Your task to perform on an android device: Search for "bose soundlink" on newegg, select the first entry, add it to the cart, then select checkout. Image 0: 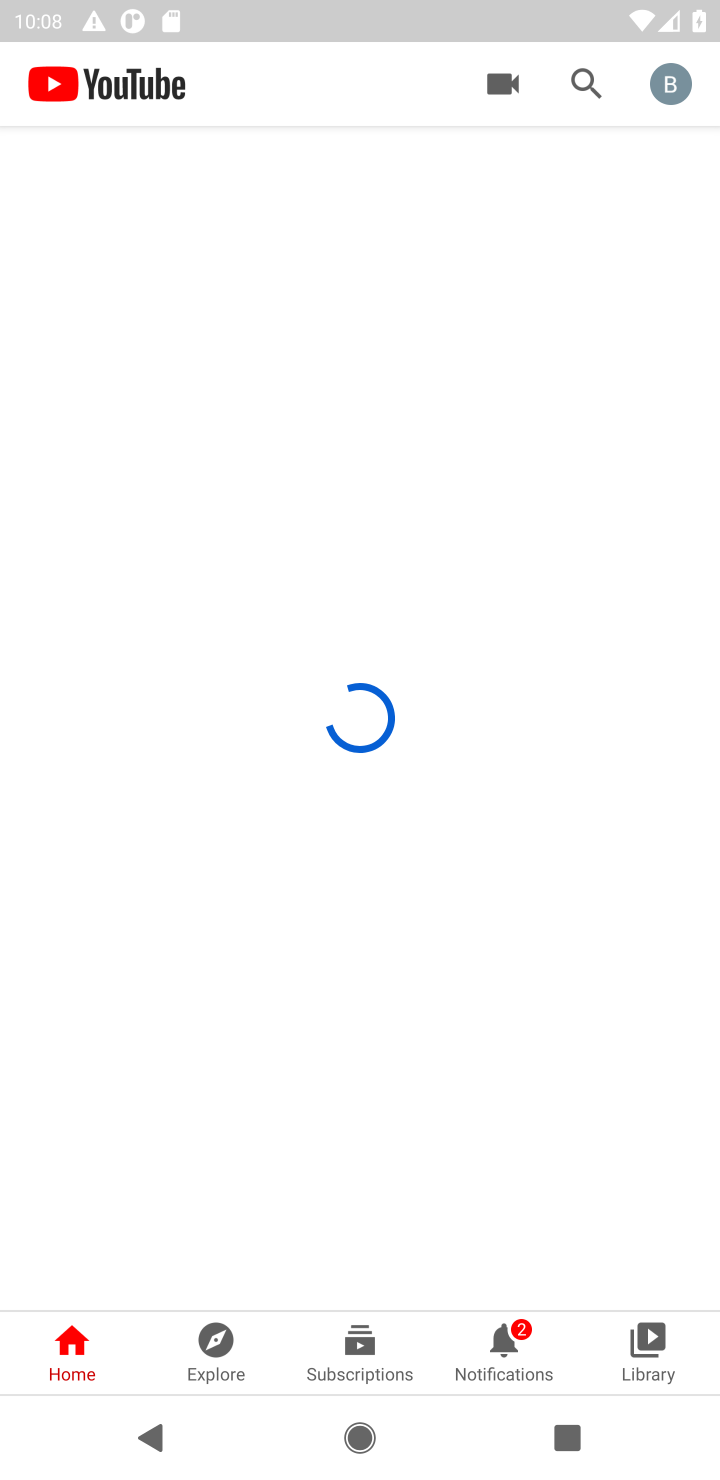
Step 0: press home button
Your task to perform on an android device: Search for "bose soundlink" on newegg, select the first entry, add it to the cart, then select checkout. Image 1: 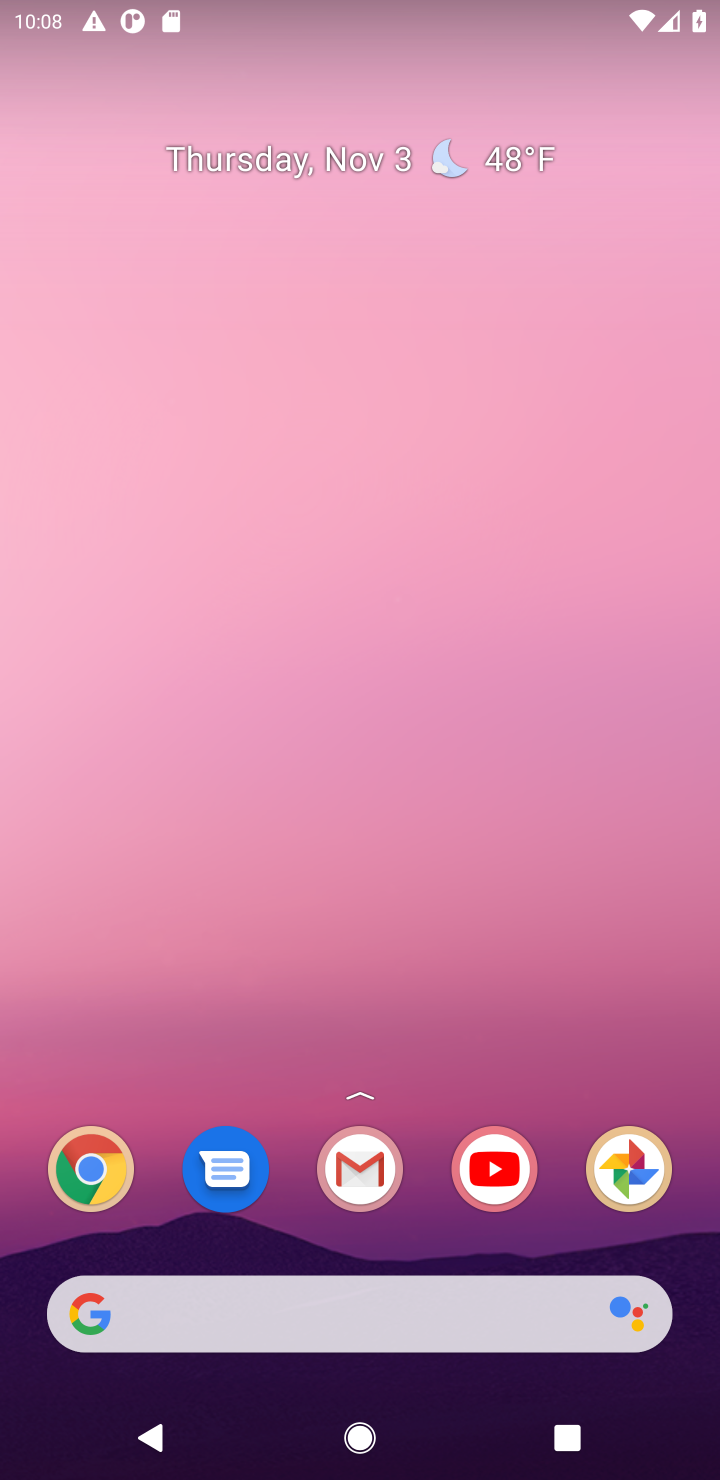
Step 1: drag from (552, 678) to (565, 257)
Your task to perform on an android device: Search for "bose soundlink" on newegg, select the first entry, add it to the cart, then select checkout. Image 2: 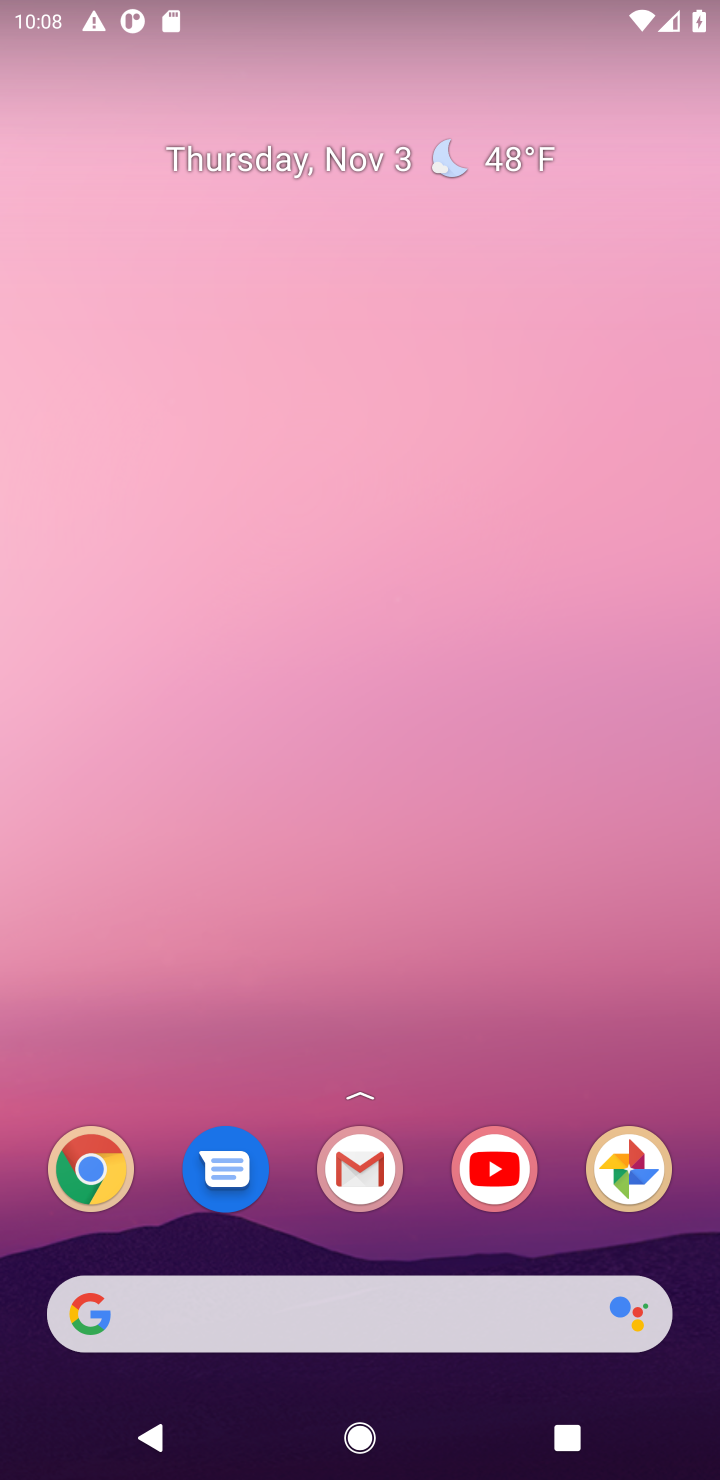
Step 2: drag from (470, 649) to (508, 184)
Your task to perform on an android device: Search for "bose soundlink" on newegg, select the first entry, add it to the cart, then select checkout. Image 3: 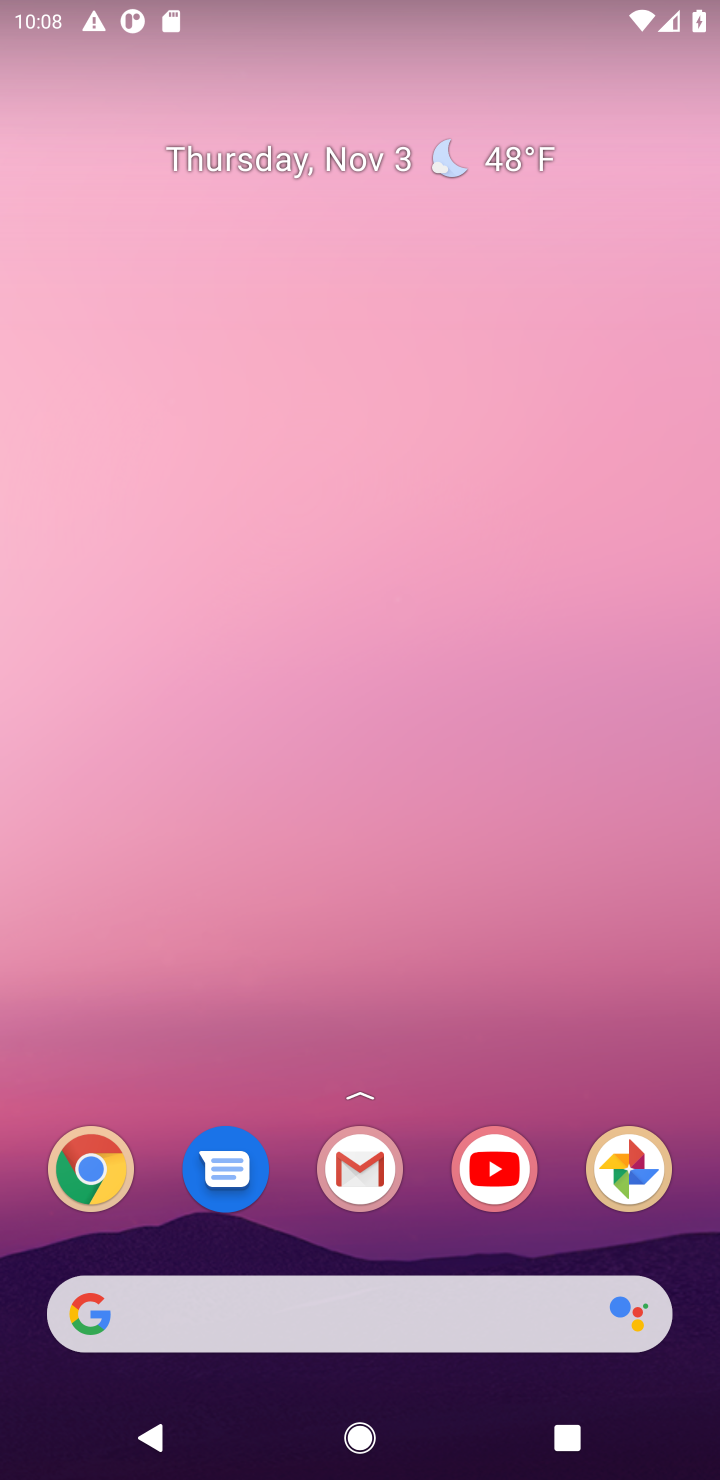
Step 3: drag from (436, 1238) to (447, 145)
Your task to perform on an android device: Search for "bose soundlink" on newegg, select the first entry, add it to the cart, then select checkout. Image 4: 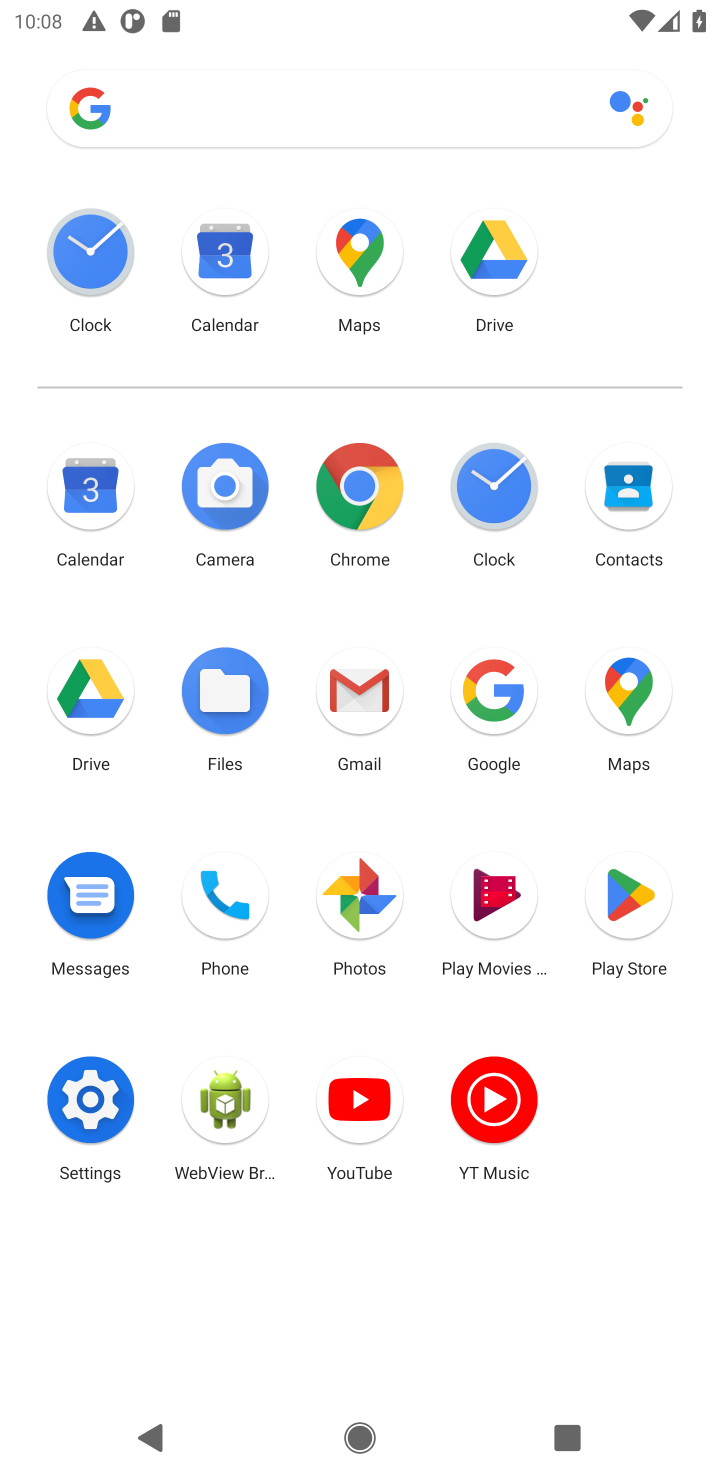
Step 4: click (357, 487)
Your task to perform on an android device: Search for "bose soundlink" on newegg, select the first entry, add it to the cart, then select checkout. Image 5: 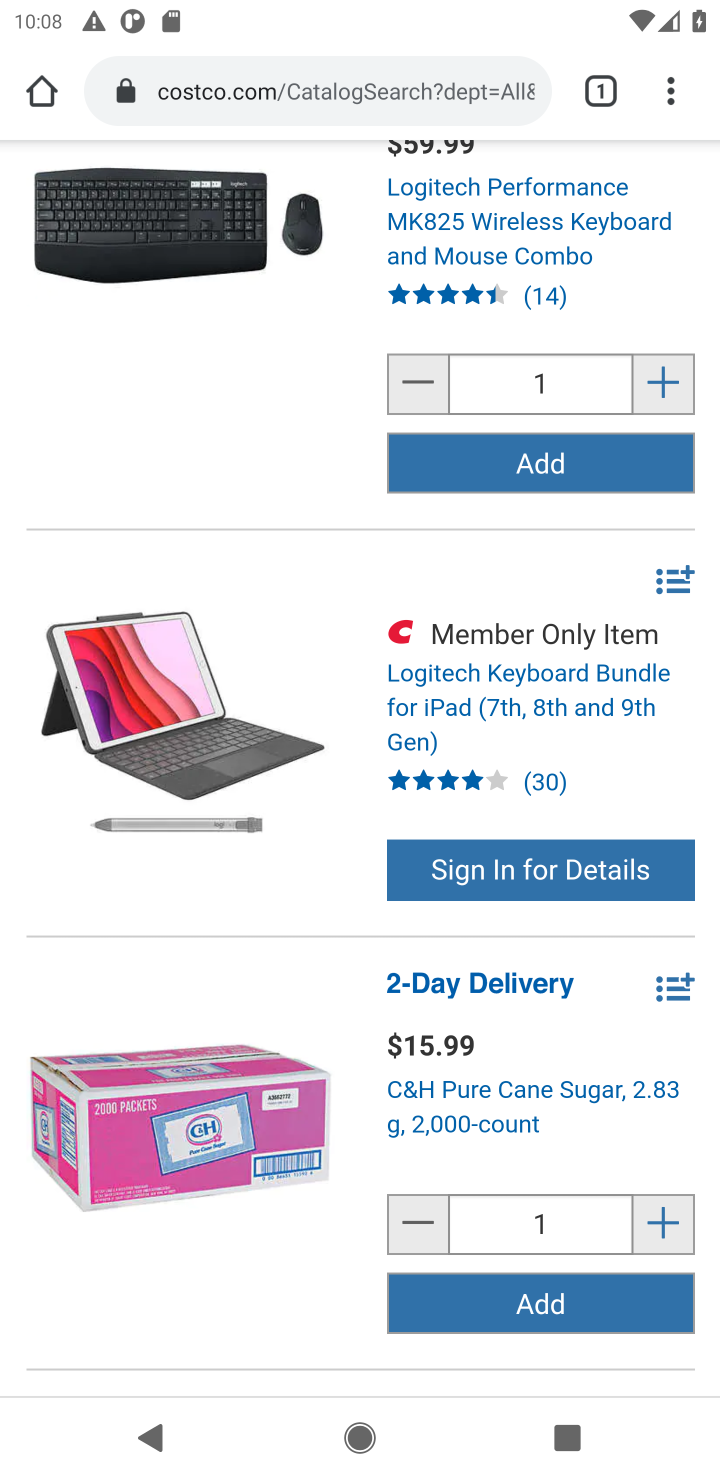
Step 5: click (349, 72)
Your task to perform on an android device: Search for "bose soundlink" on newegg, select the first entry, add it to the cart, then select checkout. Image 6: 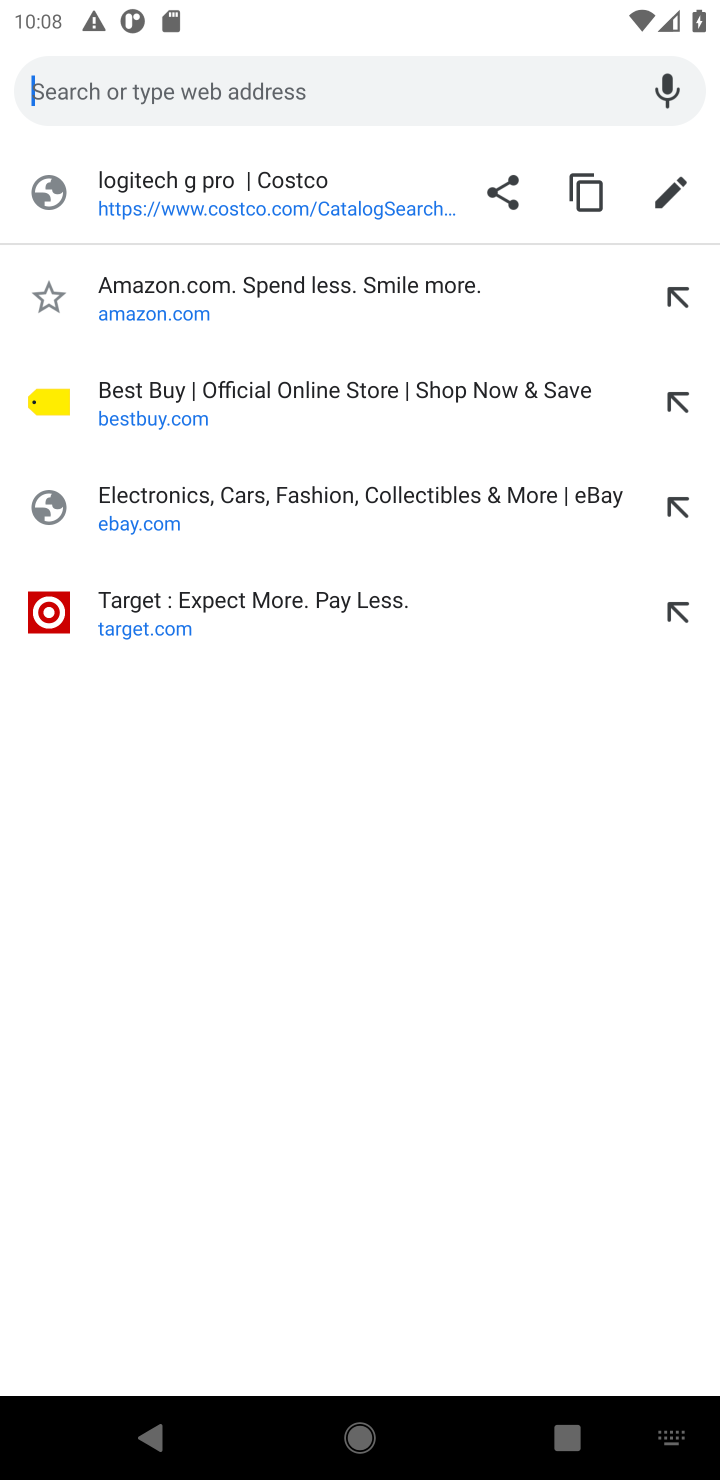
Step 6: type "newegg.com"
Your task to perform on an android device: Search for "bose soundlink" on newegg, select the first entry, add it to the cart, then select checkout. Image 7: 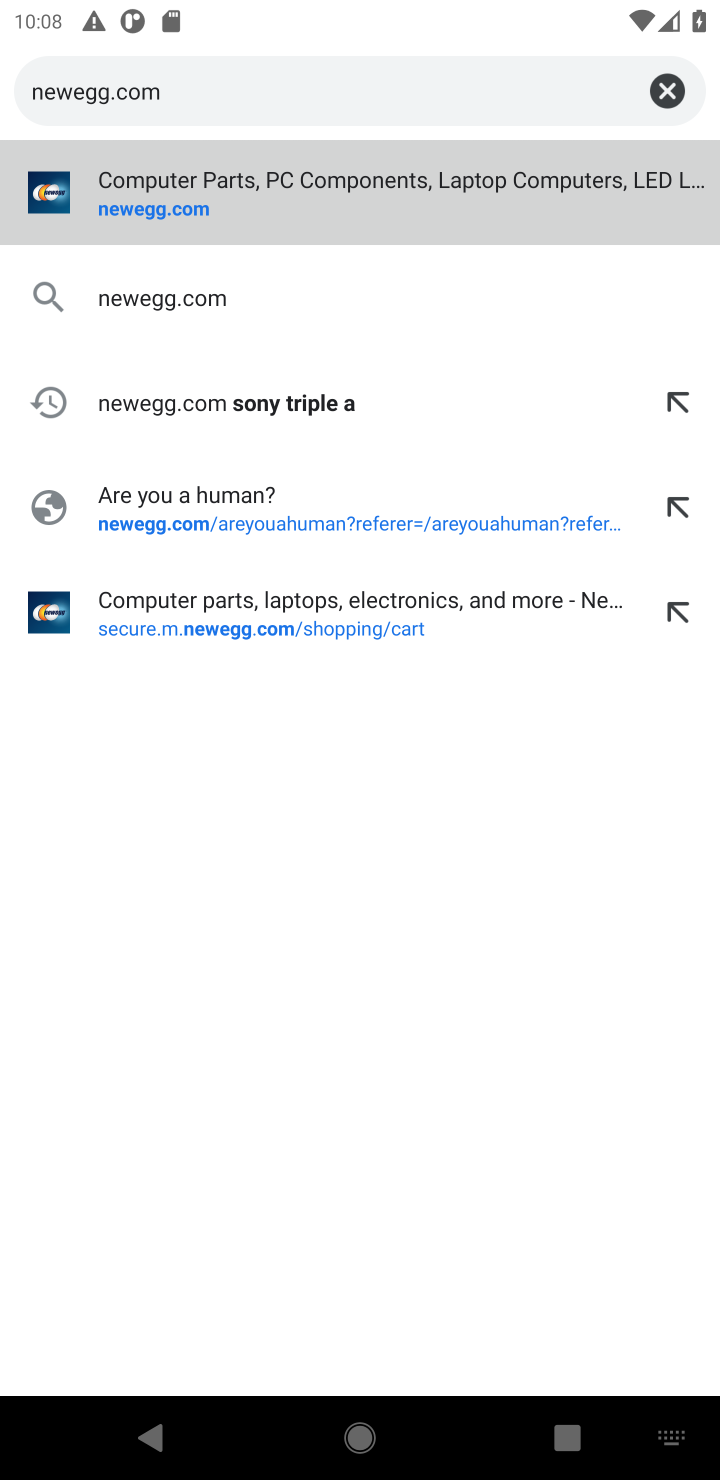
Step 7: press enter
Your task to perform on an android device: Search for "bose soundlink" on newegg, select the first entry, add it to the cart, then select checkout. Image 8: 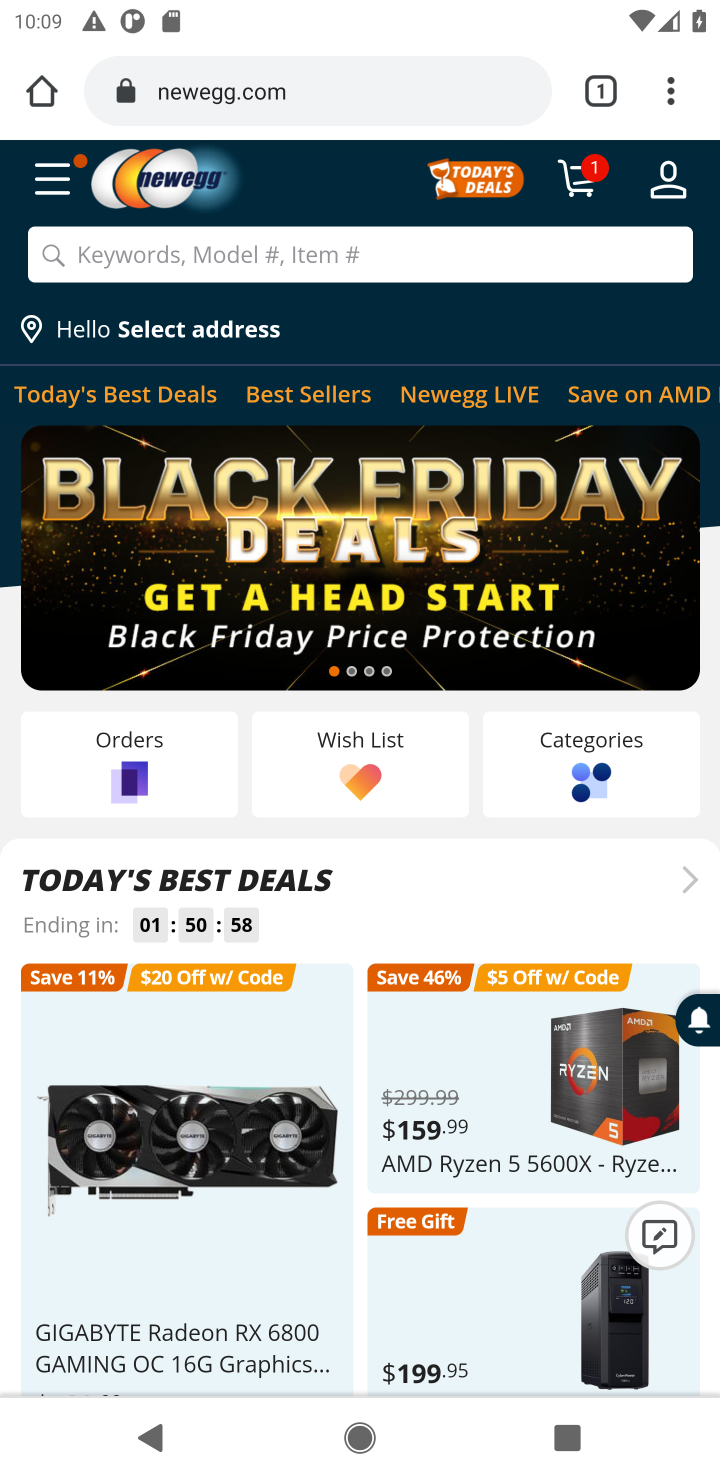
Step 8: click (553, 243)
Your task to perform on an android device: Search for "bose soundlink" on newegg, select the first entry, add it to the cart, then select checkout. Image 9: 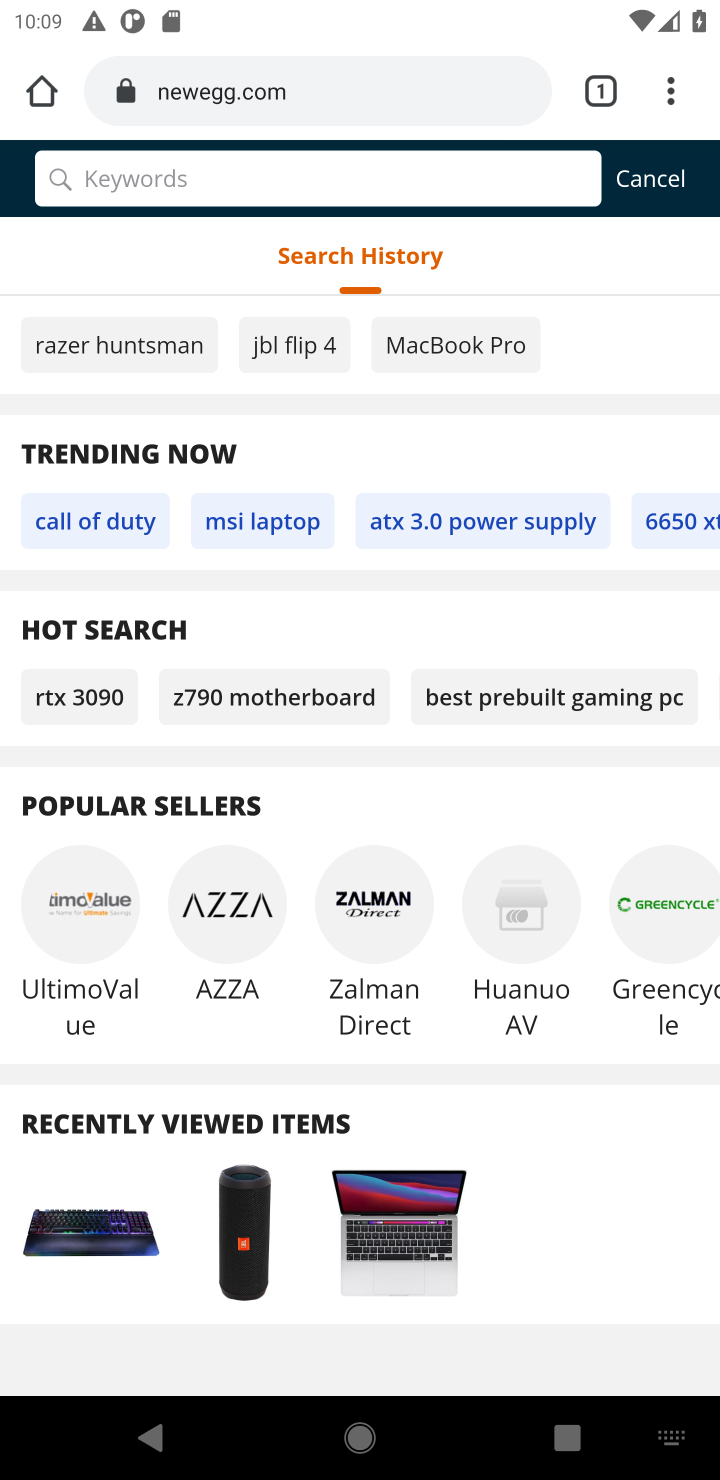
Step 9: type "bose soundlink"
Your task to perform on an android device: Search for "bose soundlink" on newegg, select the first entry, add it to the cart, then select checkout. Image 10: 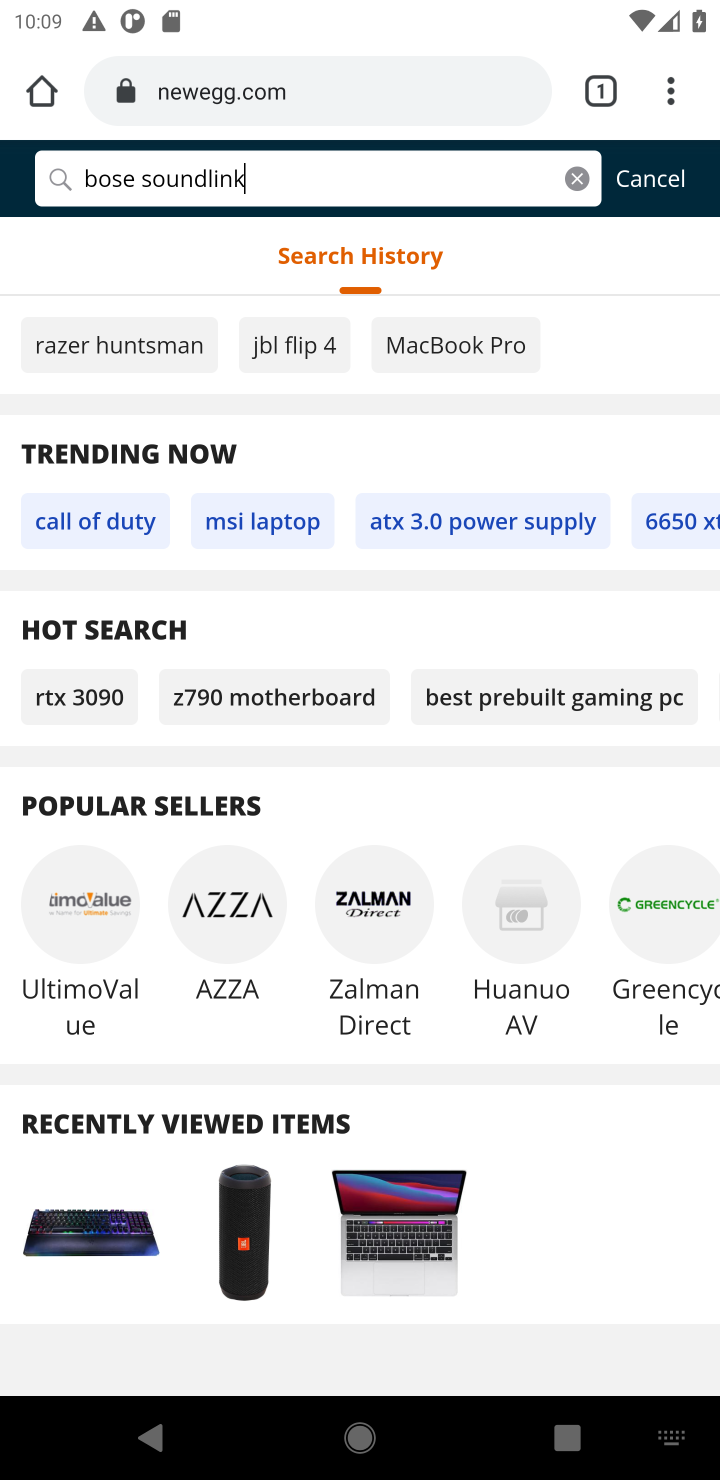
Step 10: press enter
Your task to perform on an android device: Search for "bose soundlink" on newegg, select the first entry, add it to the cart, then select checkout. Image 11: 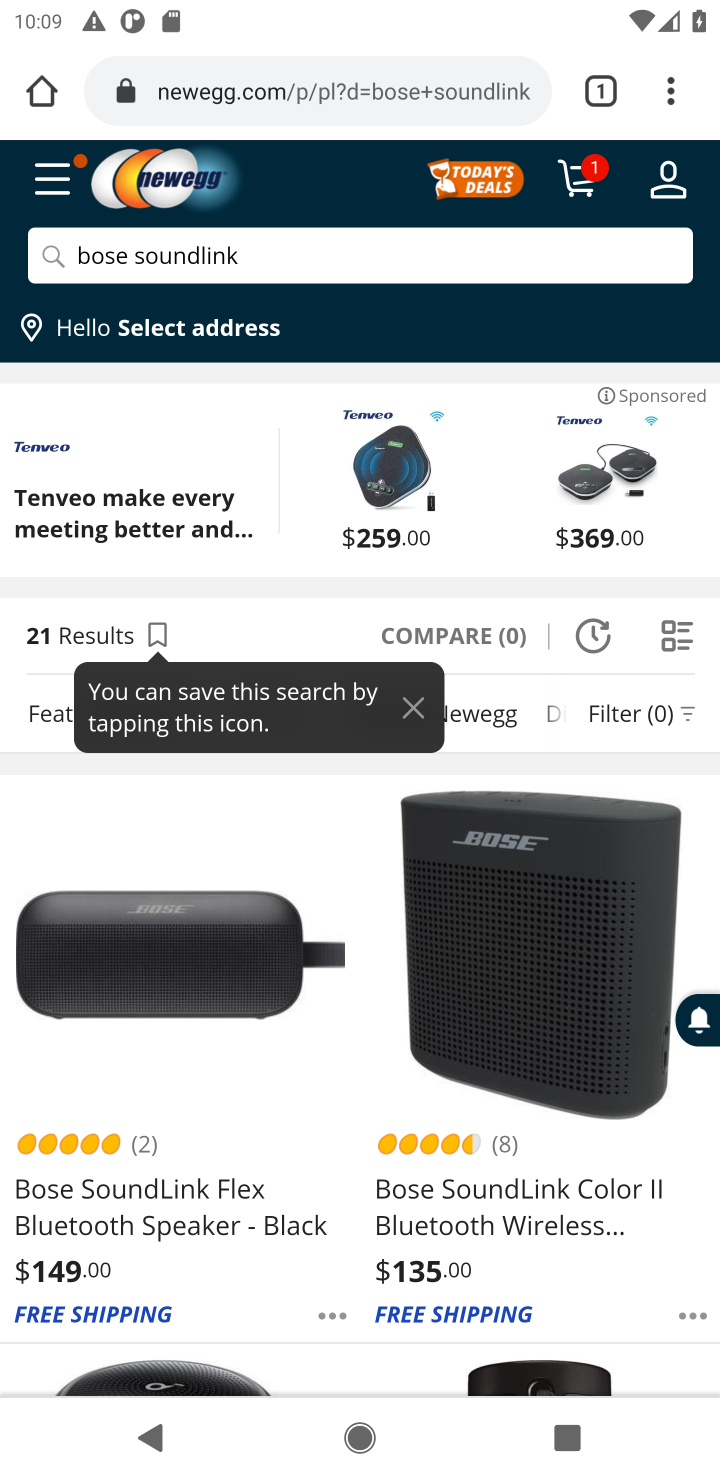
Step 11: click (149, 1010)
Your task to perform on an android device: Search for "bose soundlink" on newegg, select the first entry, add it to the cart, then select checkout. Image 12: 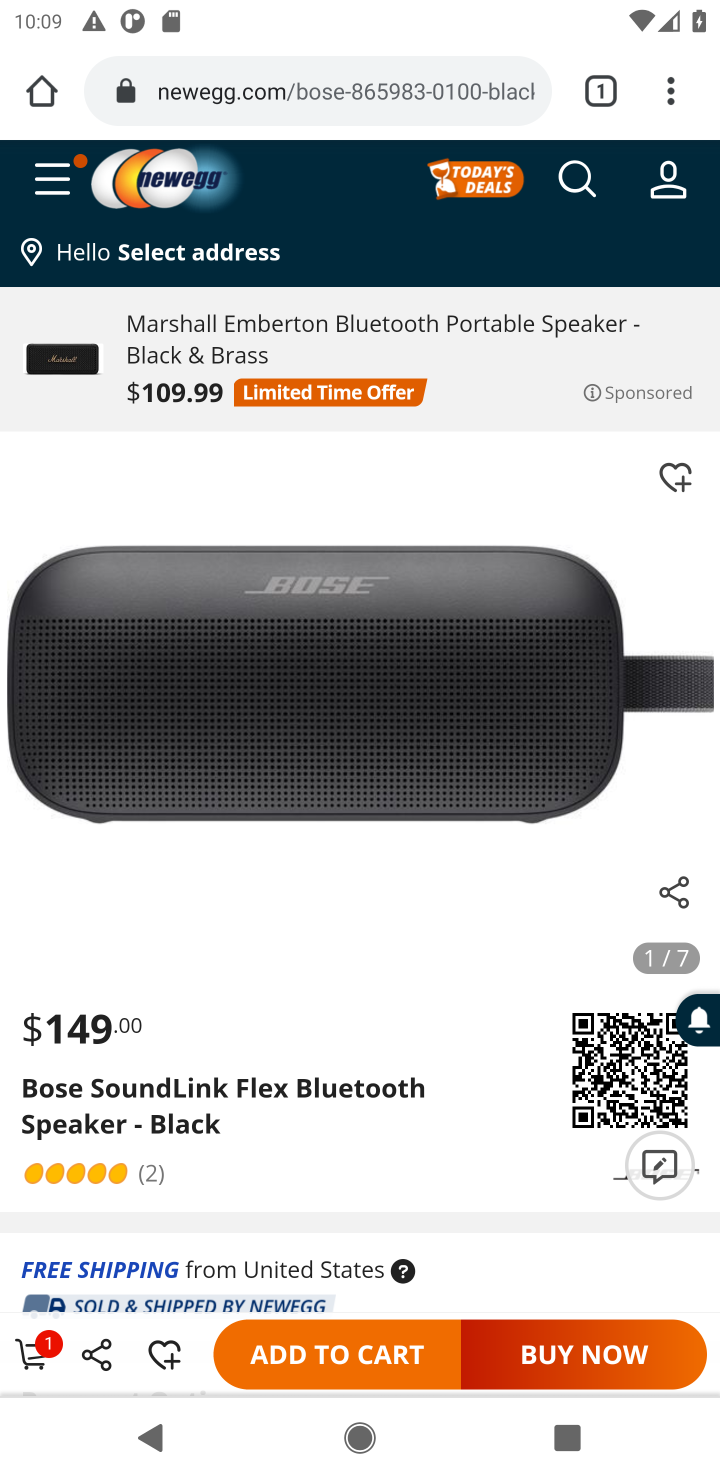
Step 12: drag from (353, 1109) to (394, 716)
Your task to perform on an android device: Search for "bose soundlink" on newegg, select the first entry, add it to the cart, then select checkout. Image 13: 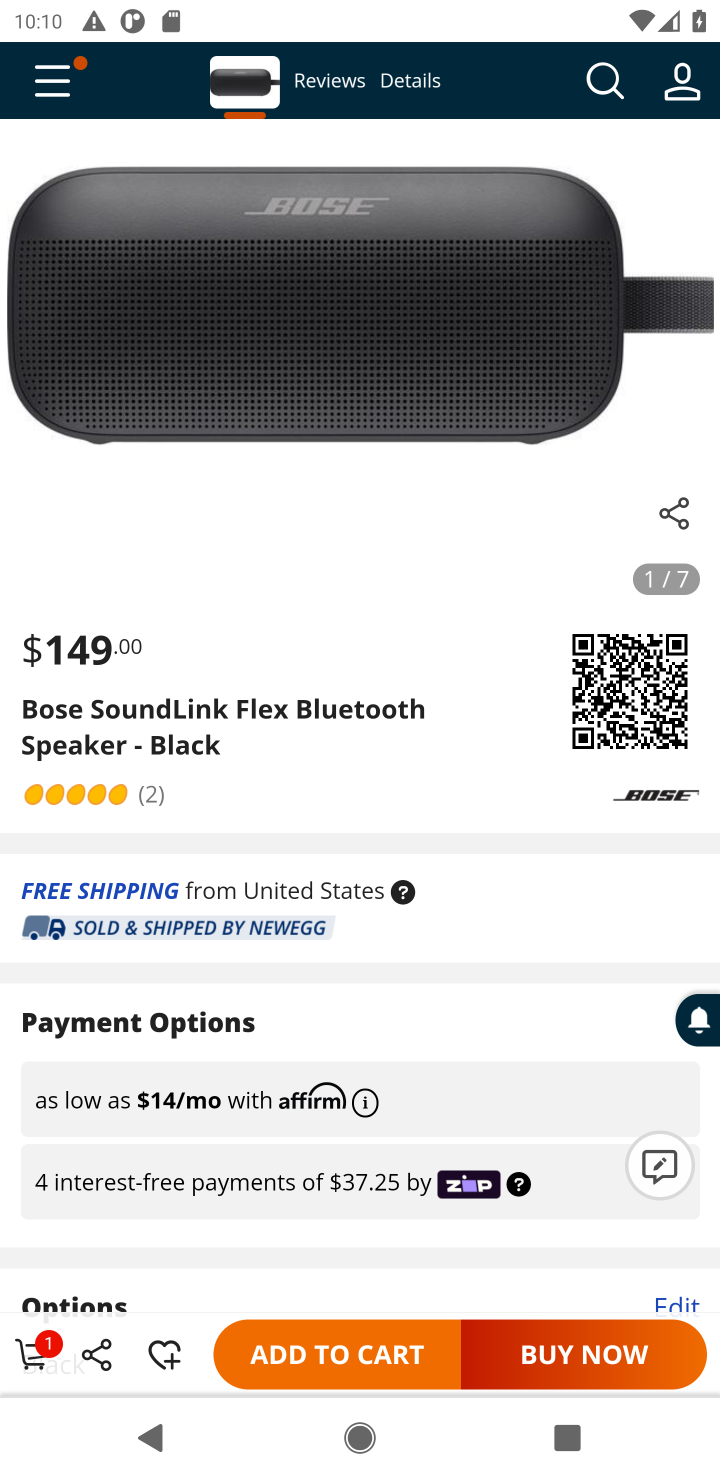
Step 13: click (334, 1358)
Your task to perform on an android device: Search for "bose soundlink" on newegg, select the first entry, add it to the cart, then select checkout. Image 14: 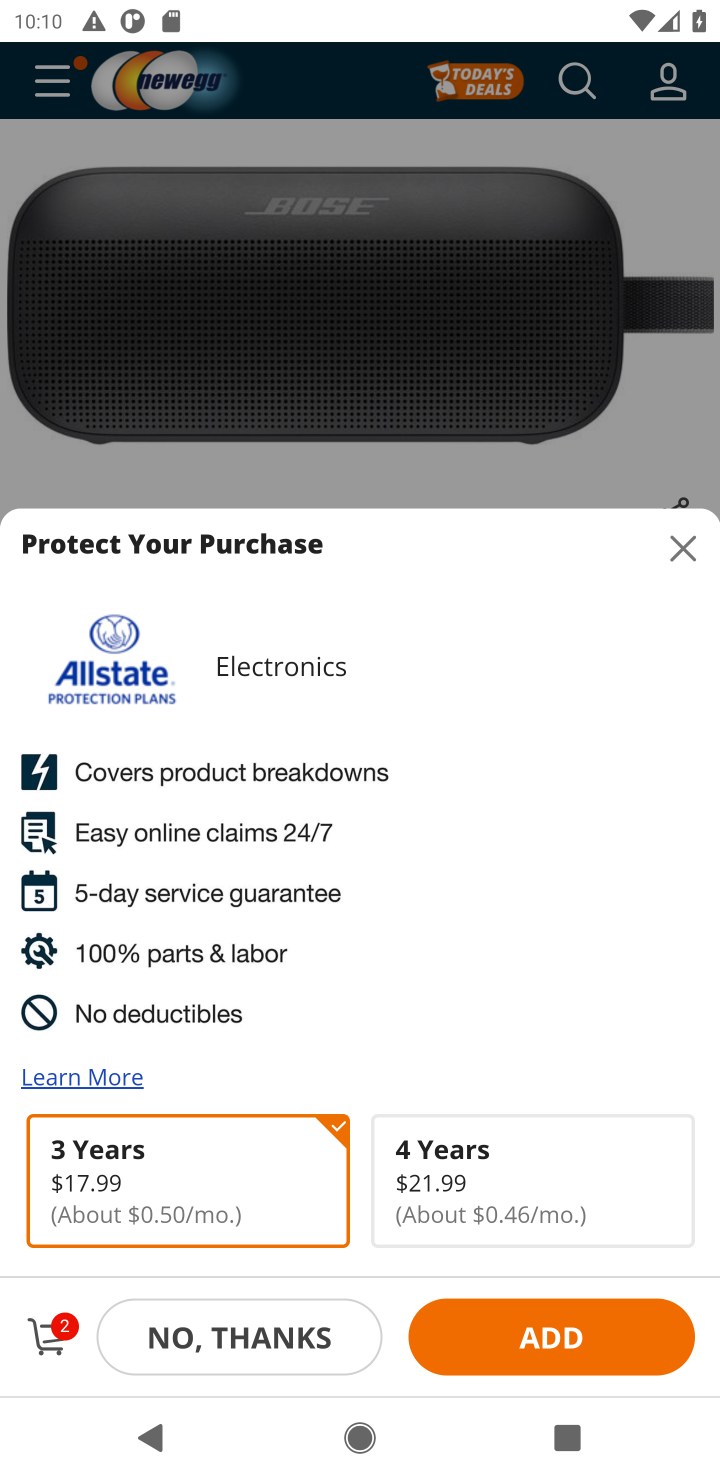
Step 14: click (53, 1333)
Your task to perform on an android device: Search for "bose soundlink" on newegg, select the first entry, add it to the cart, then select checkout. Image 15: 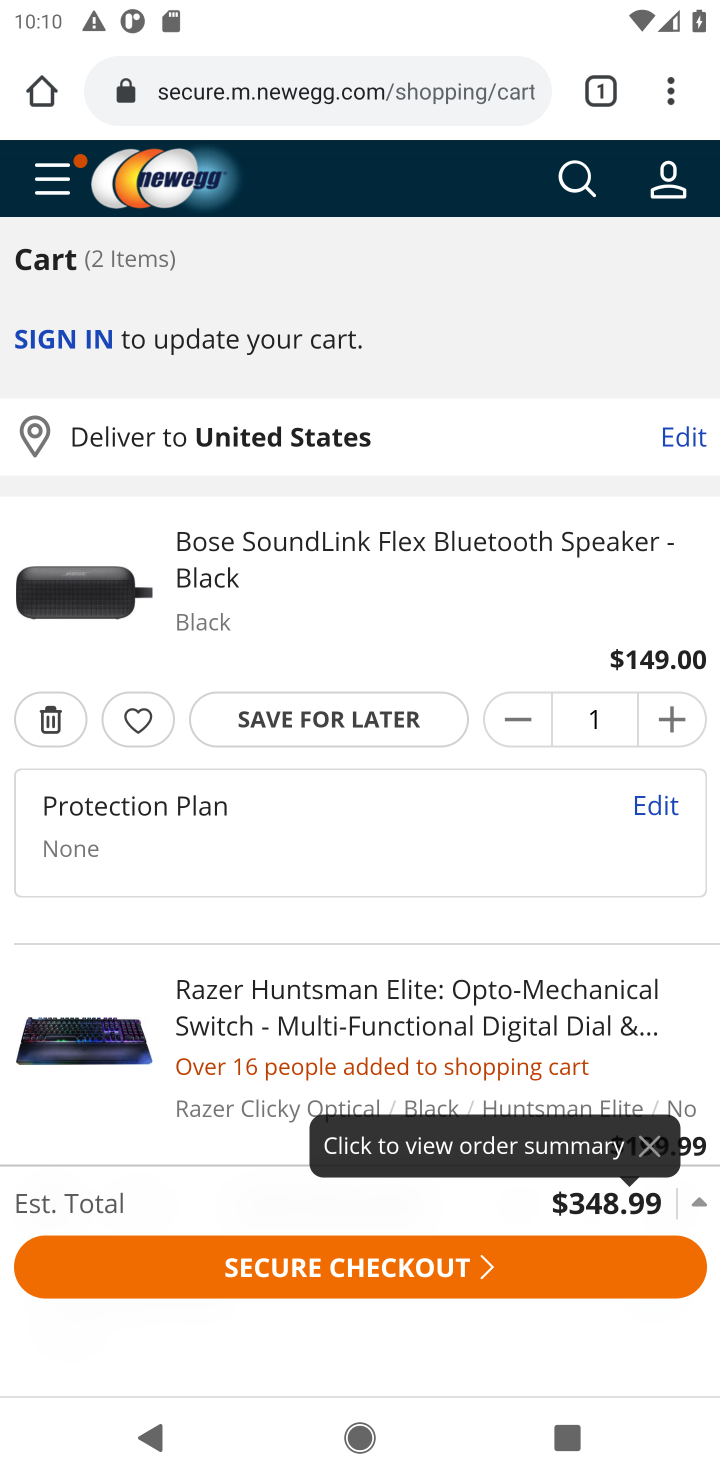
Step 15: click (402, 1271)
Your task to perform on an android device: Search for "bose soundlink" on newegg, select the first entry, add it to the cart, then select checkout. Image 16: 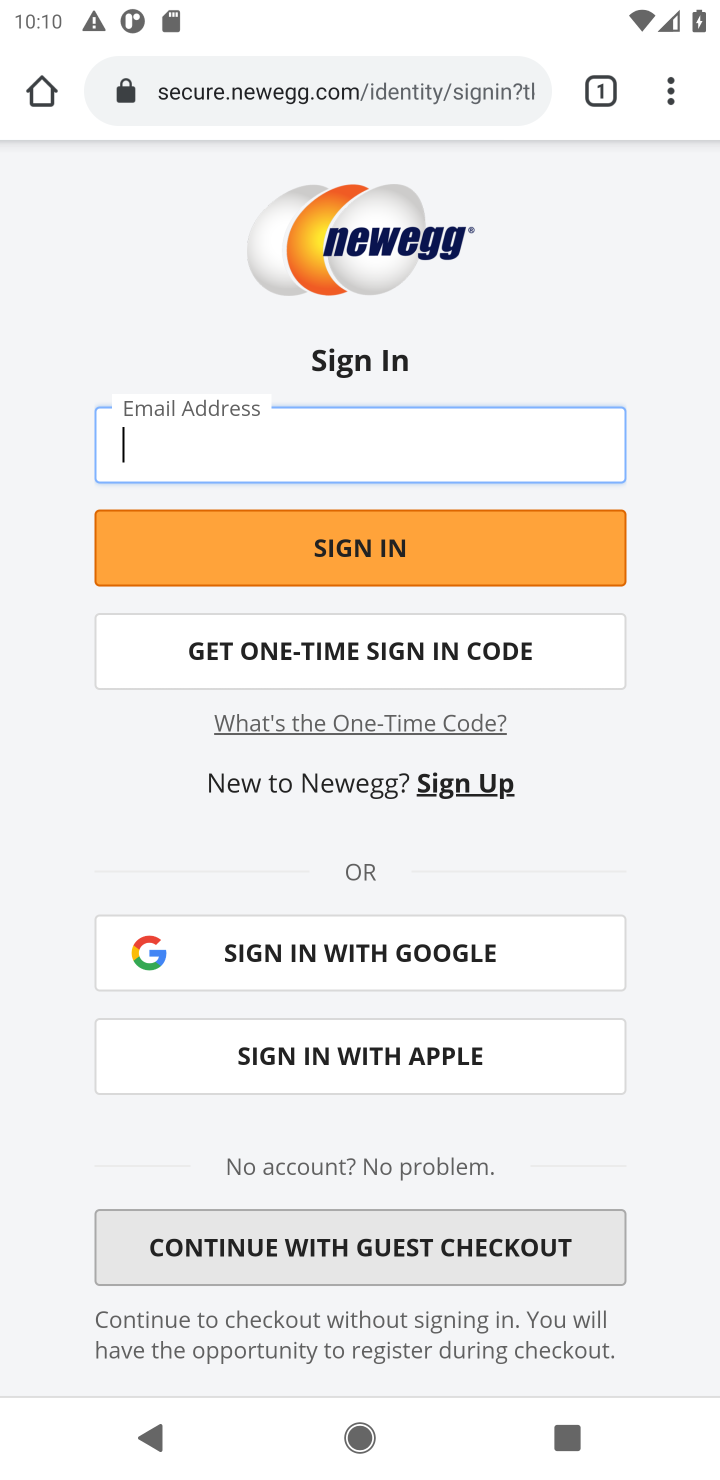
Step 16: task complete